Your task to perform on an android device: find snoozed emails in the gmail app Image 0: 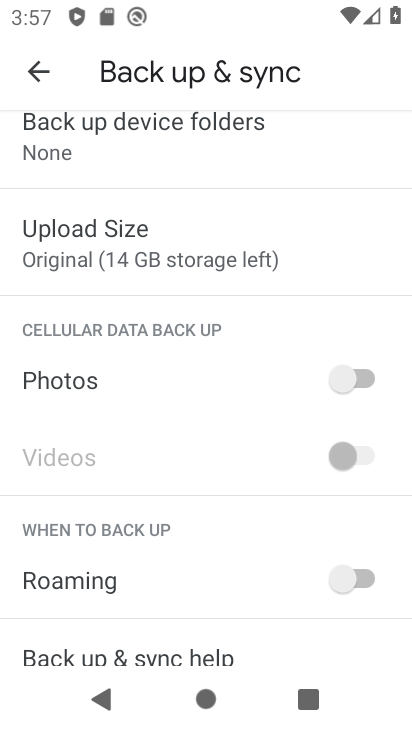
Step 0: press home button
Your task to perform on an android device: find snoozed emails in the gmail app Image 1: 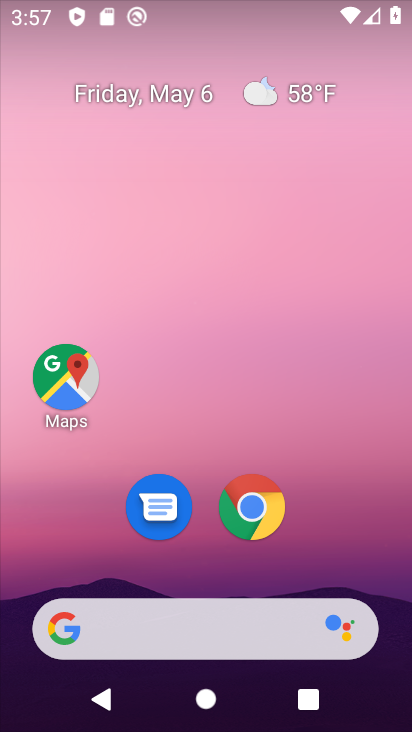
Step 1: drag from (377, 540) to (299, 106)
Your task to perform on an android device: find snoozed emails in the gmail app Image 2: 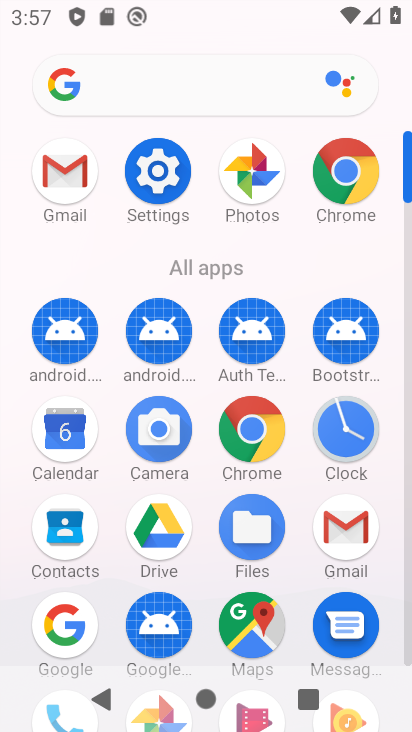
Step 2: click (76, 193)
Your task to perform on an android device: find snoozed emails in the gmail app Image 3: 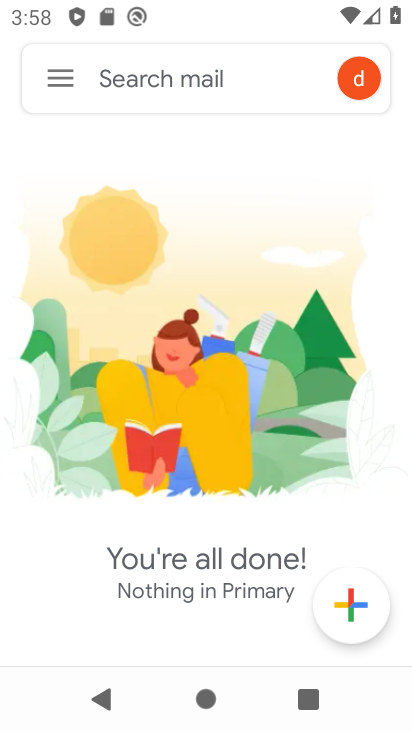
Step 3: click (57, 90)
Your task to perform on an android device: find snoozed emails in the gmail app Image 4: 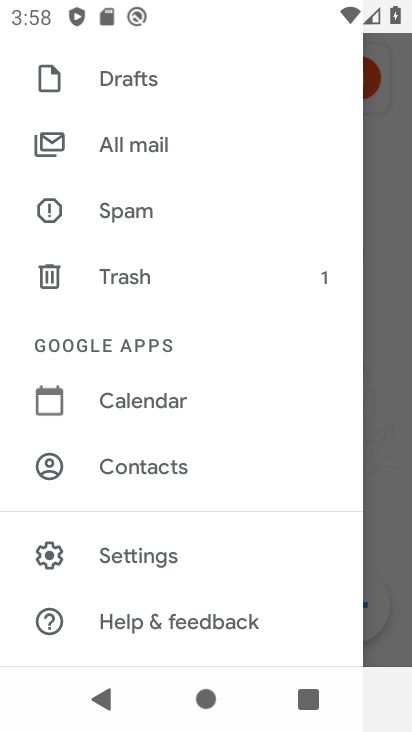
Step 4: drag from (221, 124) to (227, 593)
Your task to perform on an android device: find snoozed emails in the gmail app Image 5: 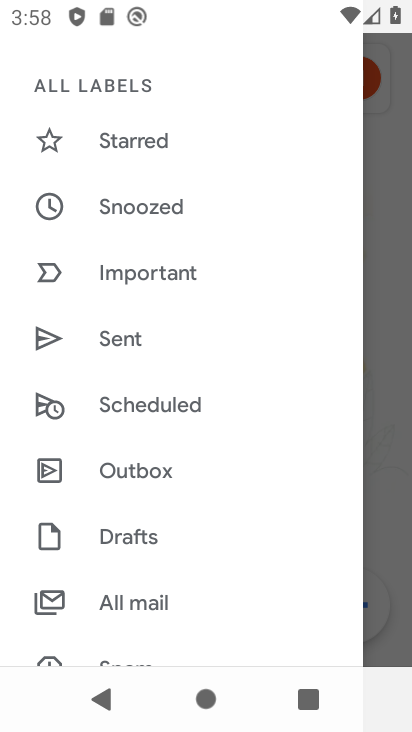
Step 5: click (194, 213)
Your task to perform on an android device: find snoozed emails in the gmail app Image 6: 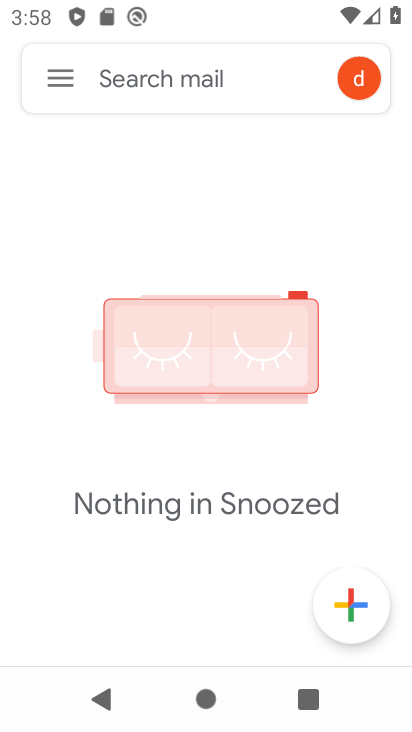
Step 6: task complete